Your task to perform on an android device: turn off translation in the chrome app Image 0: 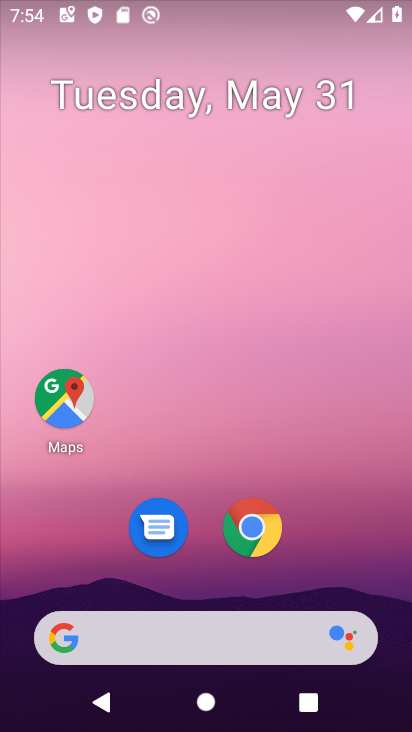
Step 0: click (205, 23)
Your task to perform on an android device: turn off translation in the chrome app Image 1: 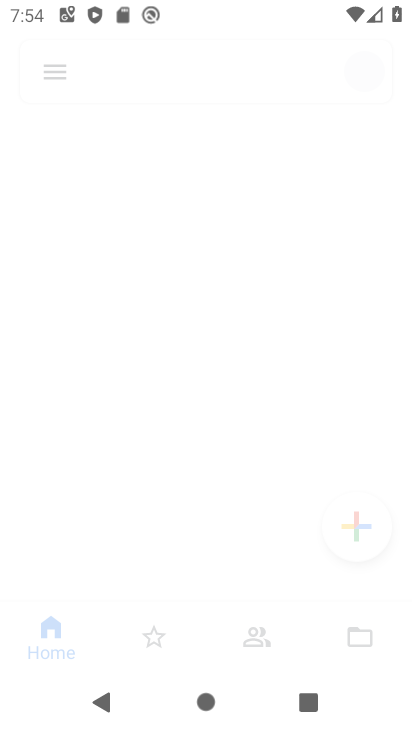
Step 1: drag from (179, 445) to (199, 85)
Your task to perform on an android device: turn off translation in the chrome app Image 2: 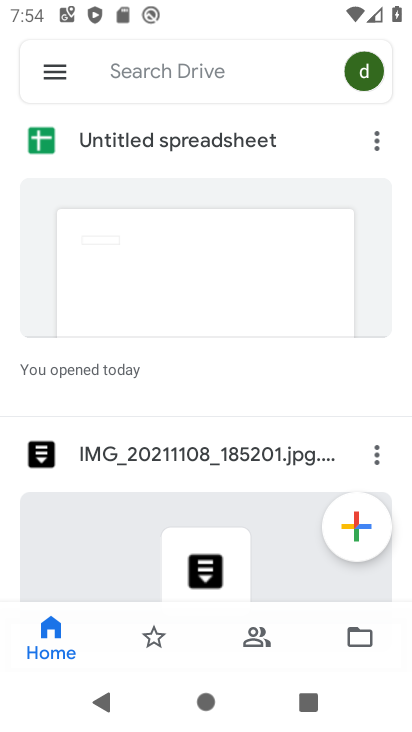
Step 2: press home button
Your task to perform on an android device: turn off translation in the chrome app Image 3: 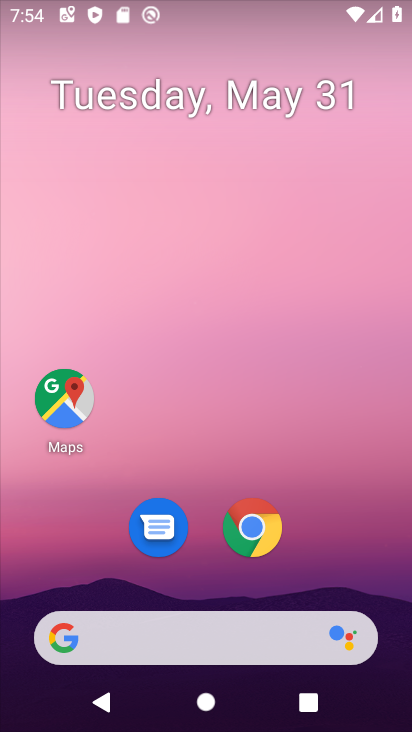
Step 3: click (251, 526)
Your task to perform on an android device: turn off translation in the chrome app Image 4: 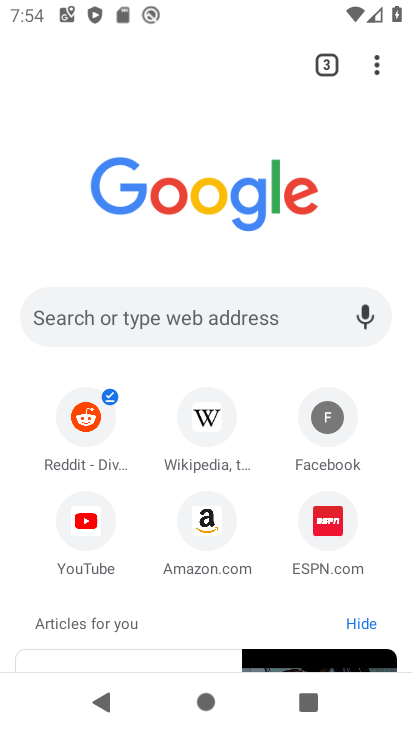
Step 4: click (378, 63)
Your task to perform on an android device: turn off translation in the chrome app Image 5: 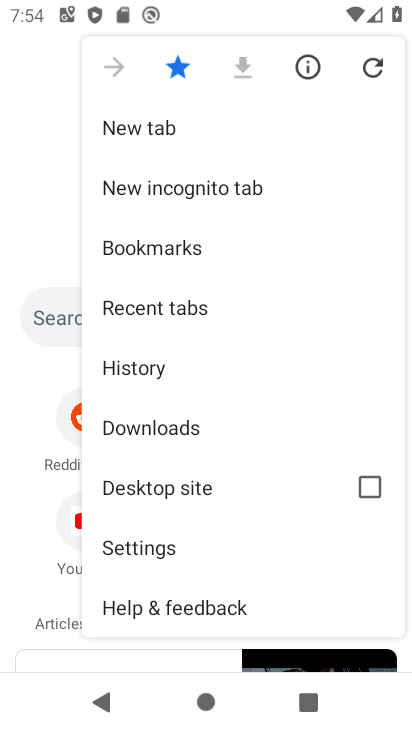
Step 5: click (146, 541)
Your task to perform on an android device: turn off translation in the chrome app Image 6: 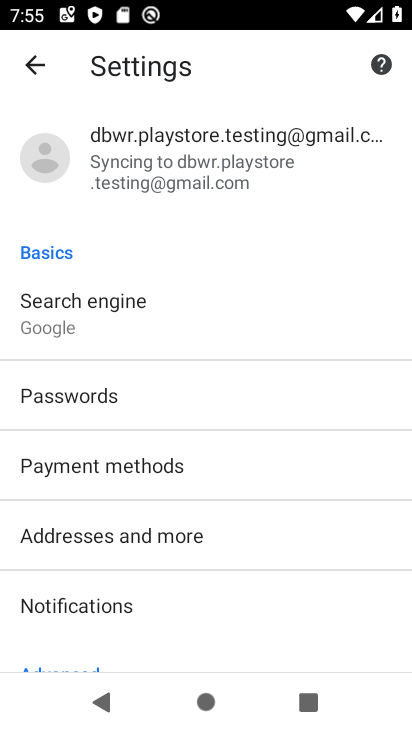
Step 6: drag from (206, 524) to (161, 280)
Your task to perform on an android device: turn off translation in the chrome app Image 7: 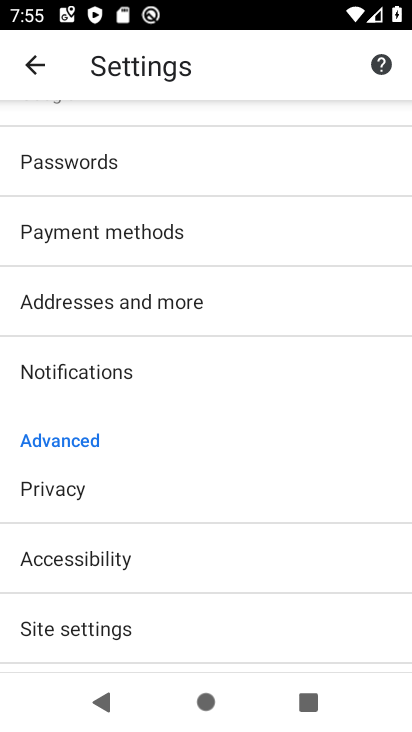
Step 7: drag from (209, 481) to (180, 174)
Your task to perform on an android device: turn off translation in the chrome app Image 8: 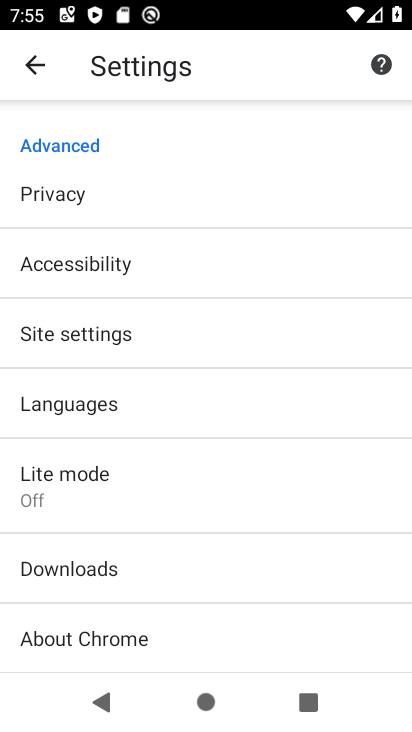
Step 8: click (96, 402)
Your task to perform on an android device: turn off translation in the chrome app Image 9: 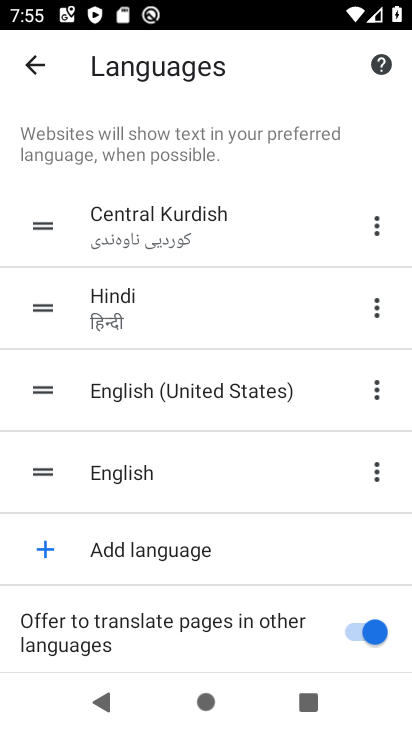
Step 9: drag from (245, 537) to (210, 277)
Your task to perform on an android device: turn off translation in the chrome app Image 10: 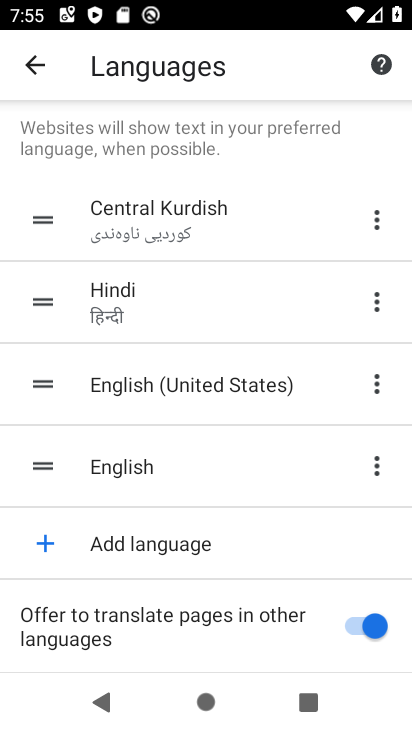
Step 10: click (363, 618)
Your task to perform on an android device: turn off translation in the chrome app Image 11: 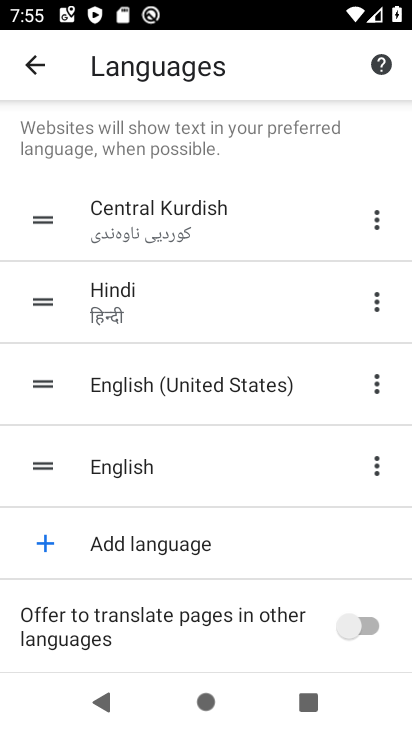
Step 11: task complete